Your task to perform on an android device: add a label to a message in the gmail app Image 0: 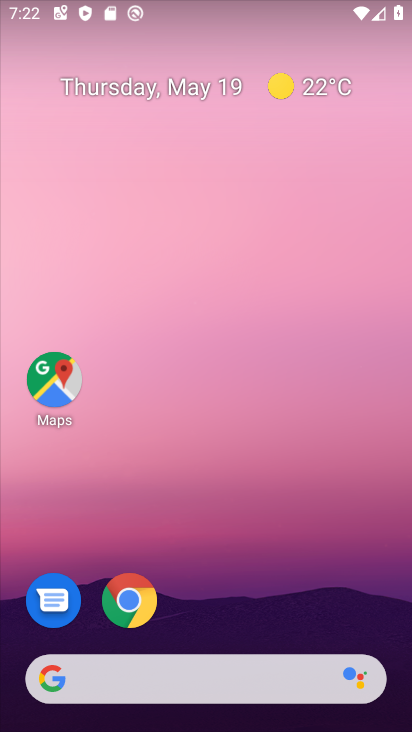
Step 0: drag from (340, 607) to (354, 135)
Your task to perform on an android device: add a label to a message in the gmail app Image 1: 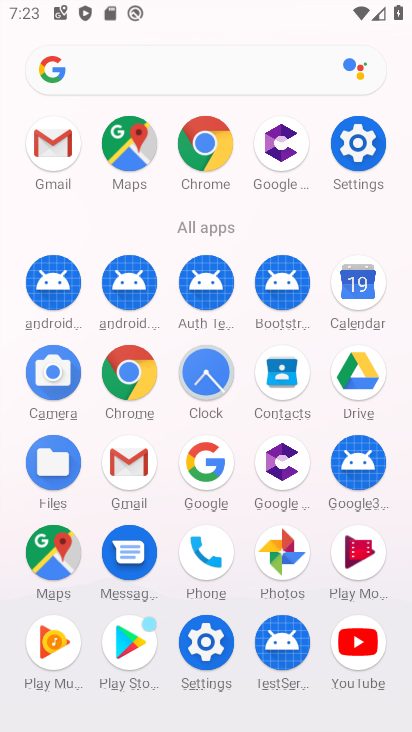
Step 1: click (124, 469)
Your task to perform on an android device: add a label to a message in the gmail app Image 2: 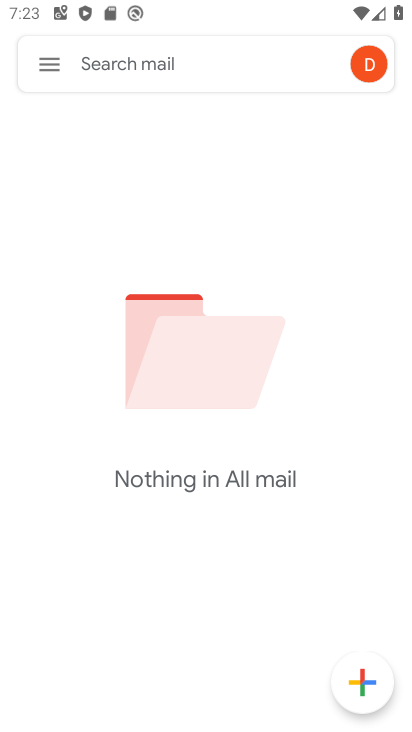
Step 2: click (37, 61)
Your task to perform on an android device: add a label to a message in the gmail app Image 3: 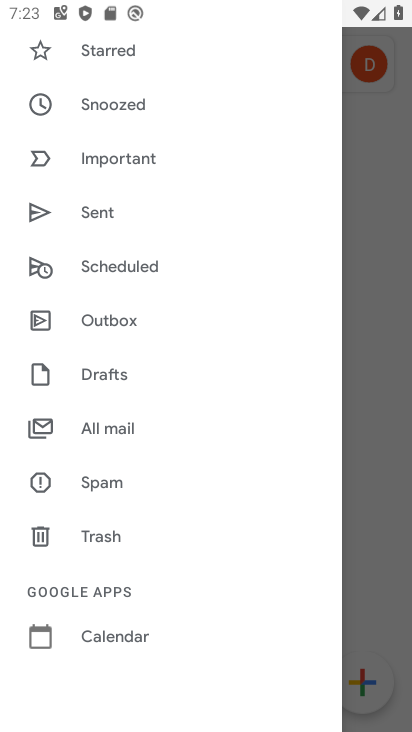
Step 3: click (133, 429)
Your task to perform on an android device: add a label to a message in the gmail app Image 4: 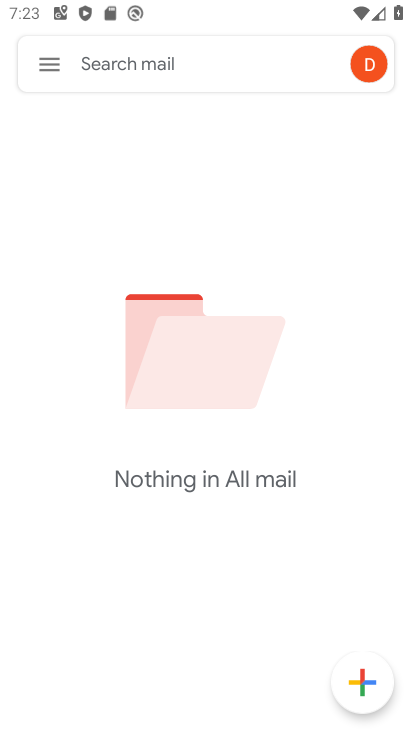
Step 4: task complete